Your task to perform on an android device: turn off airplane mode Image 0: 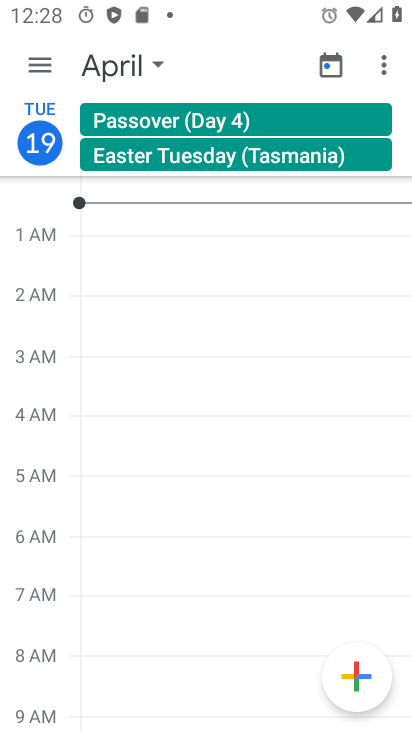
Step 0: drag from (379, 598) to (377, 111)
Your task to perform on an android device: turn off airplane mode Image 1: 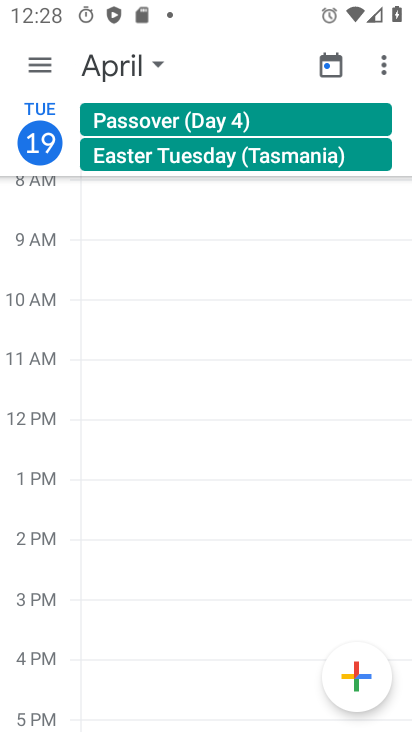
Step 1: press home button
Your task to perform on an android device: turn off airplane mode Image 2: 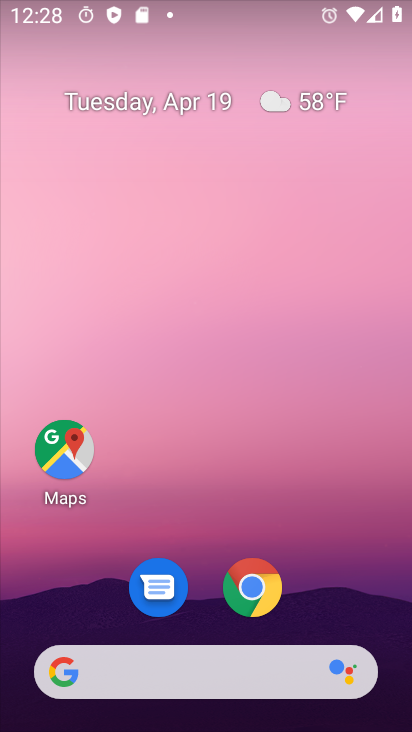
Step 2: drag from (360, 512) to (357, 149)
Your task to perform on an android device: turn off airplane mode Image 3: 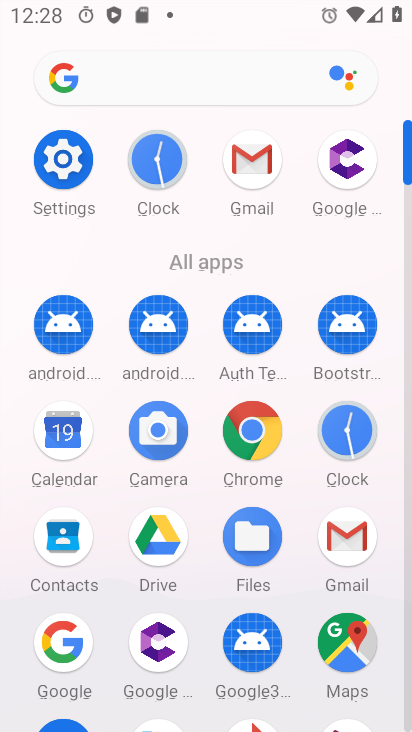
Step 3: drag from (303, 595) to (305, 289)
Your task to perform on an android device: turn off airplane mode Image 4: 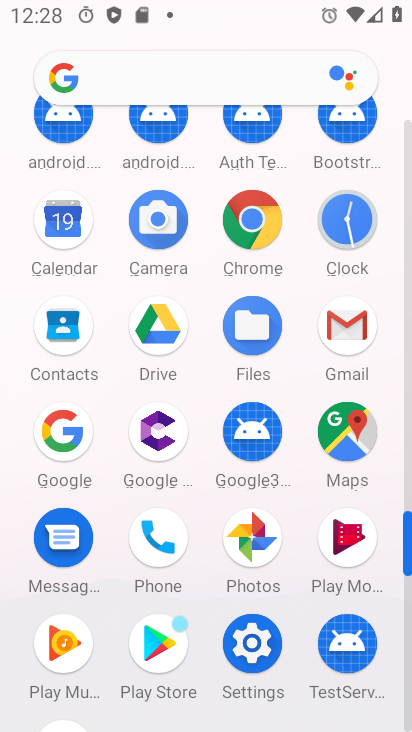
Step 4: click (245, 659)
Your task to perform on an android device: turn off airplane mode Image 5: 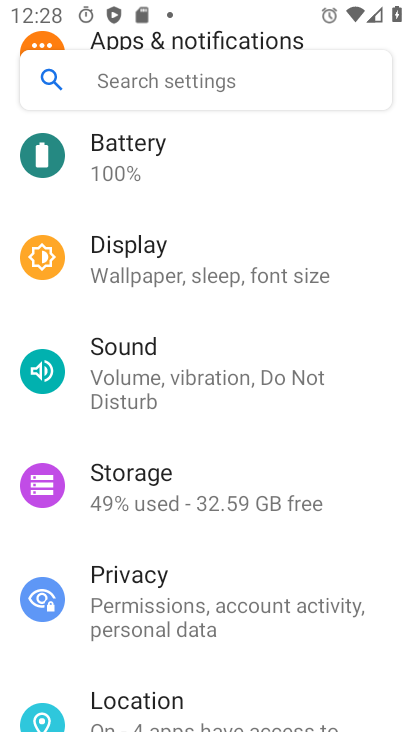
Step 5: drag from (331, 205) to (313, 647)
Your task to perform on an android device: turn off airplane mode Image 6: 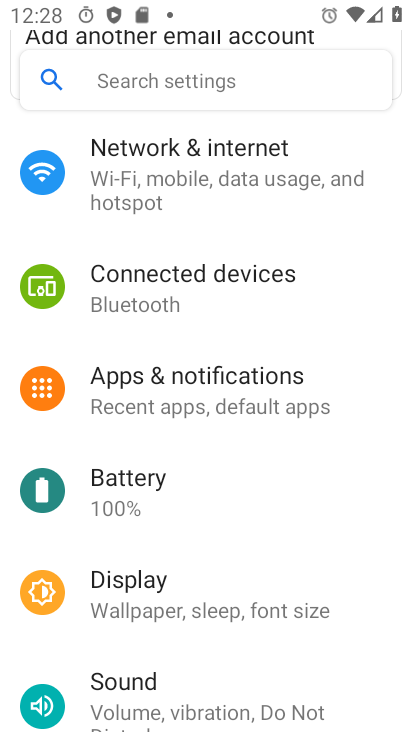
Step 6: drag from (344, 257) to (329, 623)
Your task to perform on an android device: turn off airplane mode Image 7: 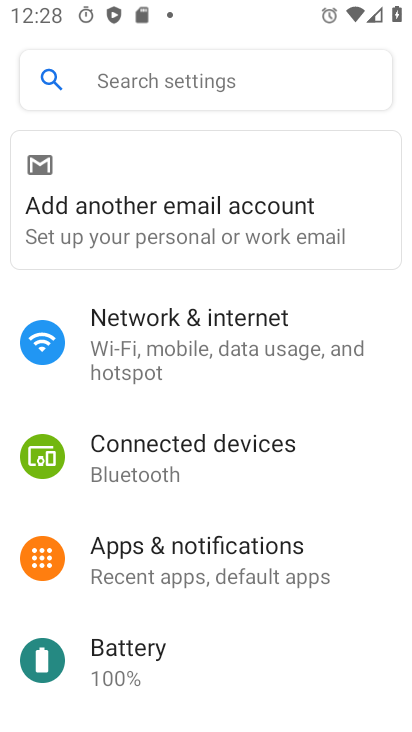
Step 7: click (277, 342)
Your task to perform on an android device: turn off airplane mode Image 8: 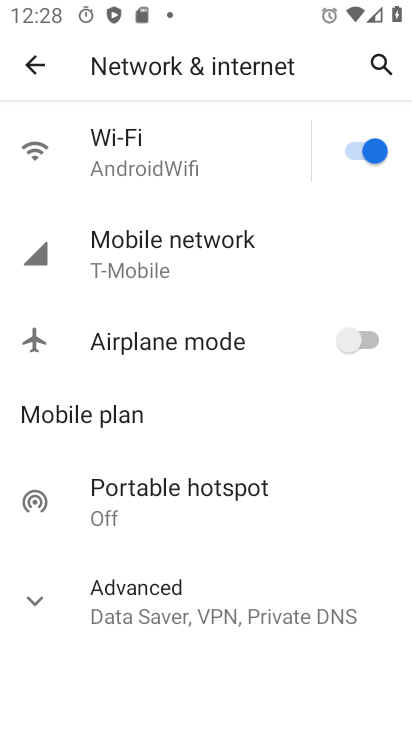
Step 8: task complete